Your task to perform on an android device: Open calendar and show me the first week of next month Image 0: 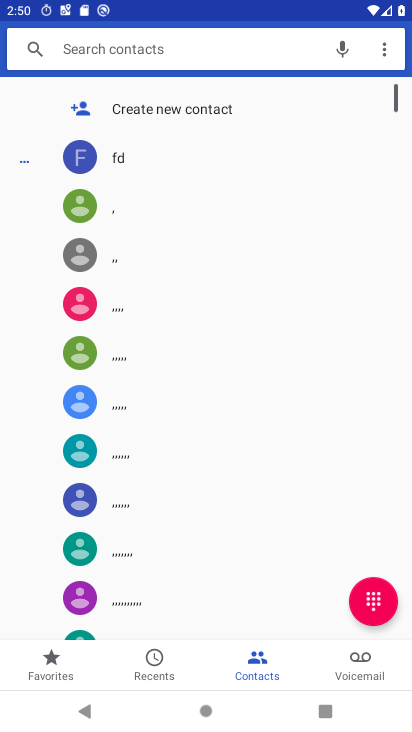
Step 0: press home button
Your task to perform on an android device: Open calendar and show me the first week of next month Image 1: 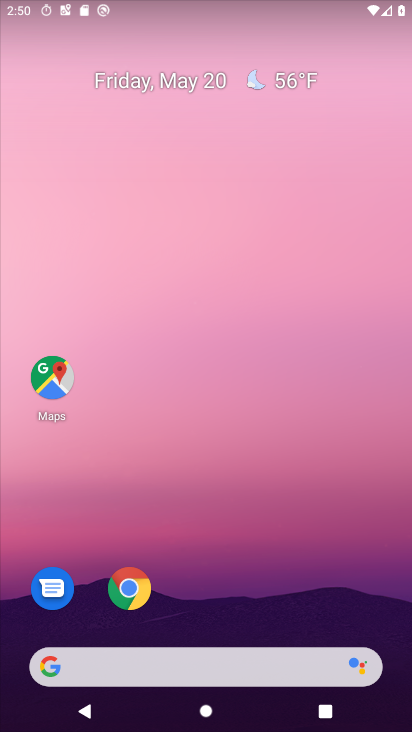
Step 1: drag from (0, 729) to (296, 233)
Your task to perform on an android device: Open calendar and show me the first week of next month Image 2: 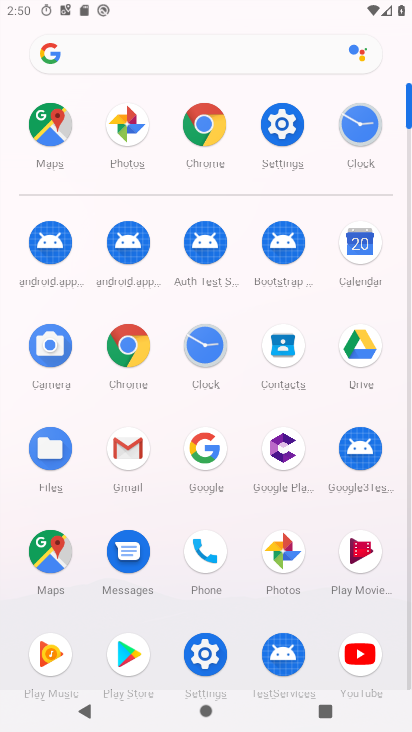
Step 2: click (367, 250)
Your task to perform on an android device: Open calendar and show me the first week of next month Image 3: 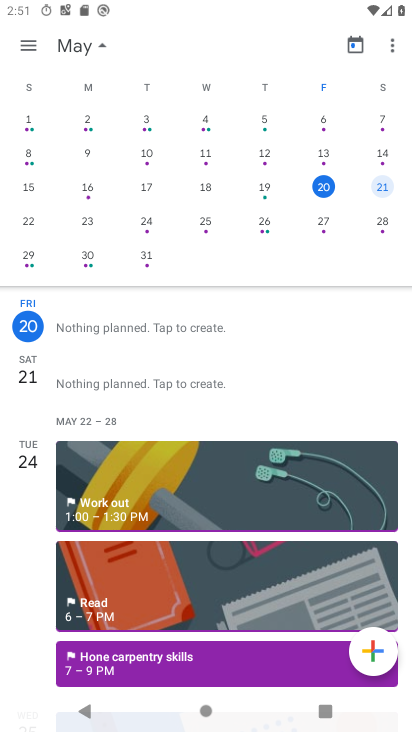
Step 3: task complete